Your task to perform on an android device: Open the phone app and click the voicemail tab. Image 0: 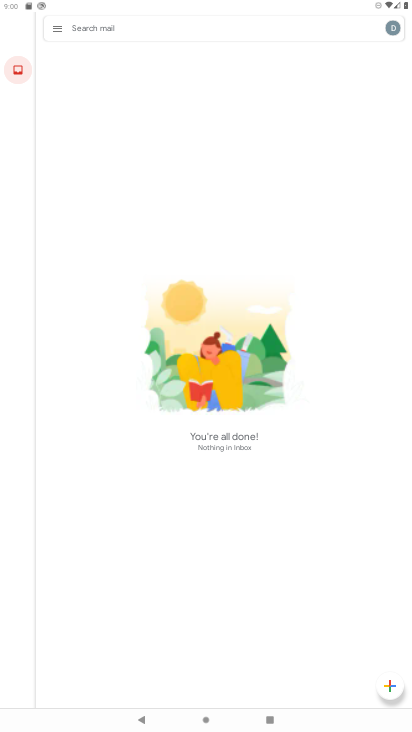
Step 0: press back button
Your task to perform on an android device: Open the phone app and click the voicemail tab. Image 1: 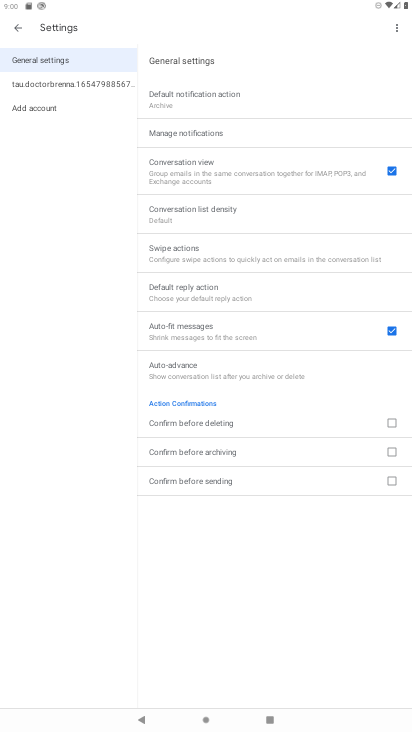
Step 1: press home button
Your task to perform on an android device: Open the phone app and click the voicemail tab. Image 2: 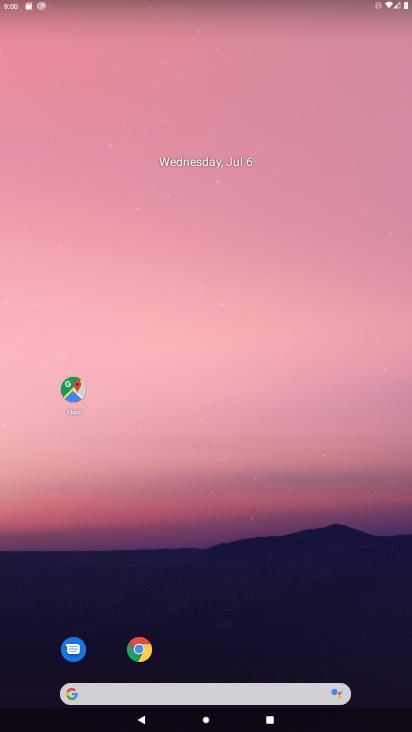
Step 2: drag from (266, 718) to (136, 232)
Your task to perform on an android device: Open the phone app and click the voicemail tab. Image 3: 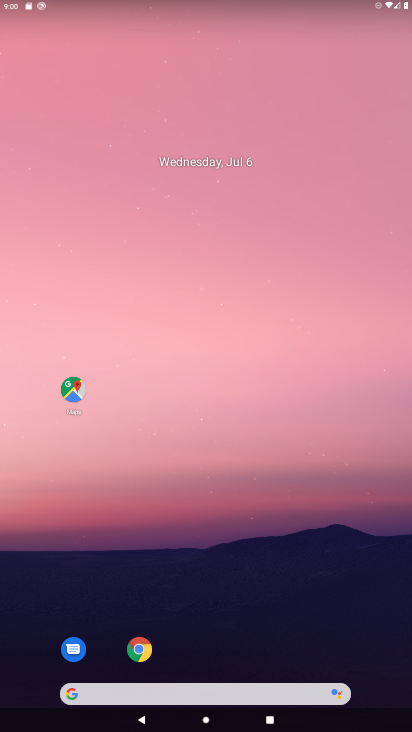
Step 3: drag from (305, 677) to (245, 314)
Your task to perform on an android device: Open the phone app and click the voicemail tab. Image 4: 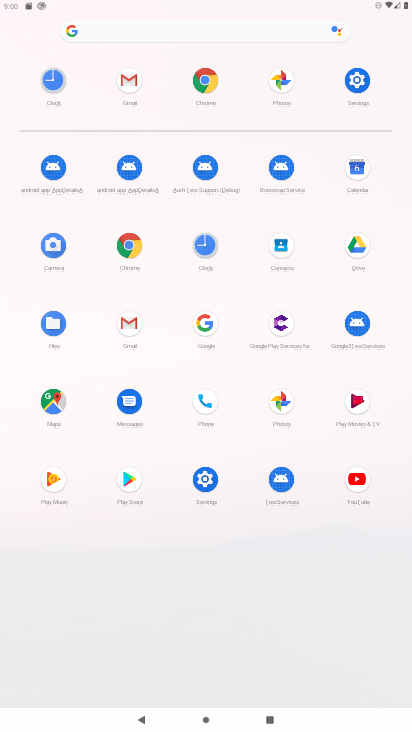
Step 4: click (207, 401)
Your task to perform on an android device: Open the phone app and click the voicemail tab. Image 5: 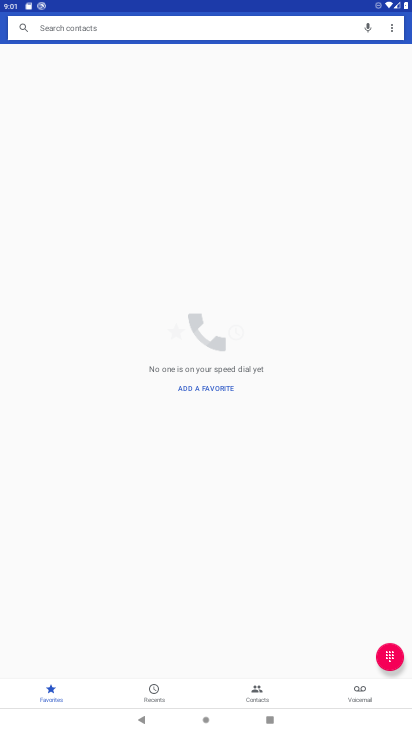
Step 5: click (371, 695)
Your task to perform on an android device: Open the phone app and click the voicemail tab. Image 6: 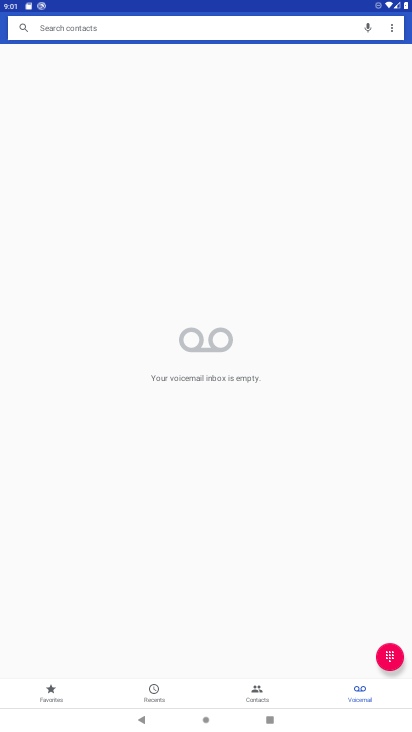
Step 6: task complete